Your task to perform on an android device: Open location settings Image 0: 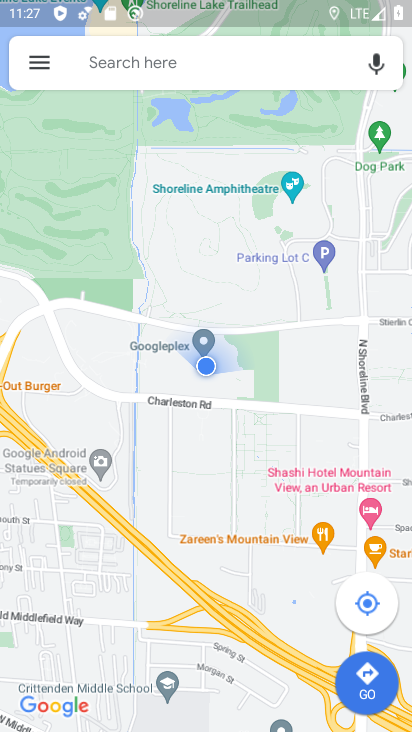
Step 0: press home button
Your task to perform on an android device: Open location settings Image 1: 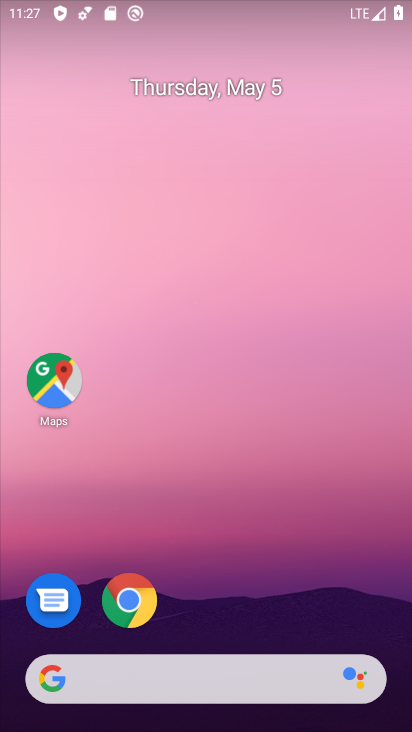
Step 1: drag from (368, 613) to (206, 46)
Your task to perform on an android device: Open location settings Image 2: 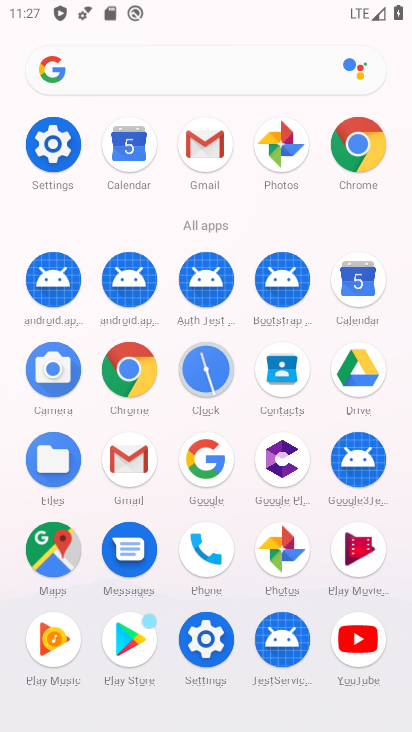
Step 2: click (64, 162)
Your task to perform on an android device: Open location settings Image 3: 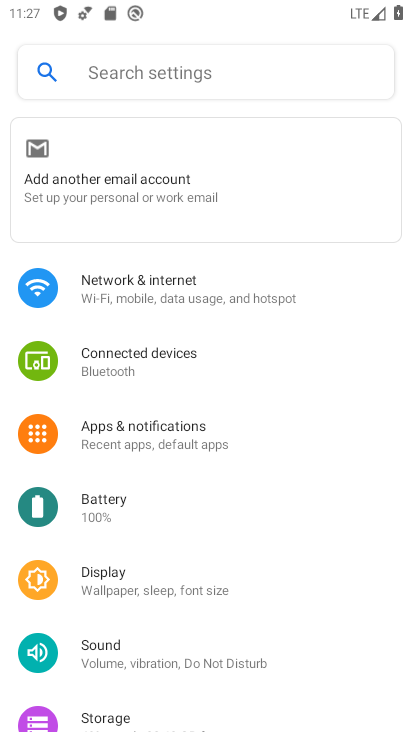
Step 3: drag from (143, 643) to (190, 227)
Your task to perform on an android device: Open location settings Image 4: 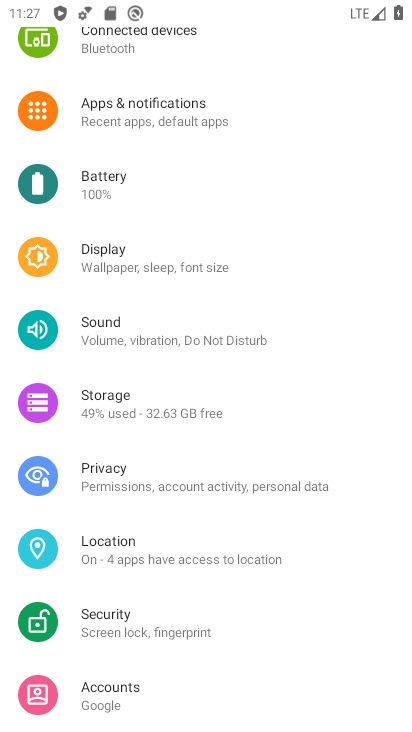
Step 4: click (153, 544)
Your task to perform on an android device: Open location settings Image 5: 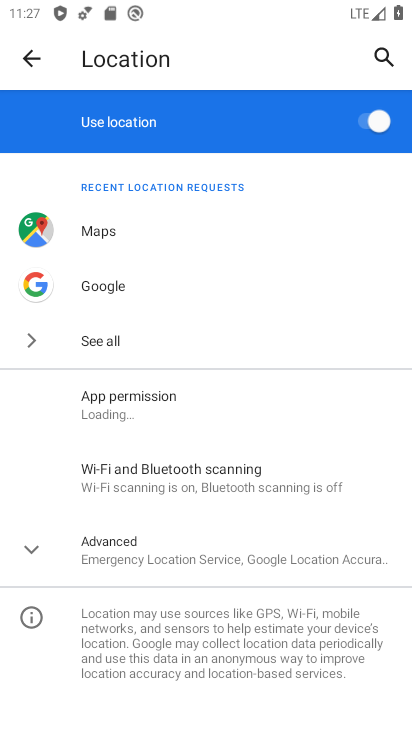
Step 5: task complete